Your task to perform on an android device: Go to accessibility settings Image 0: 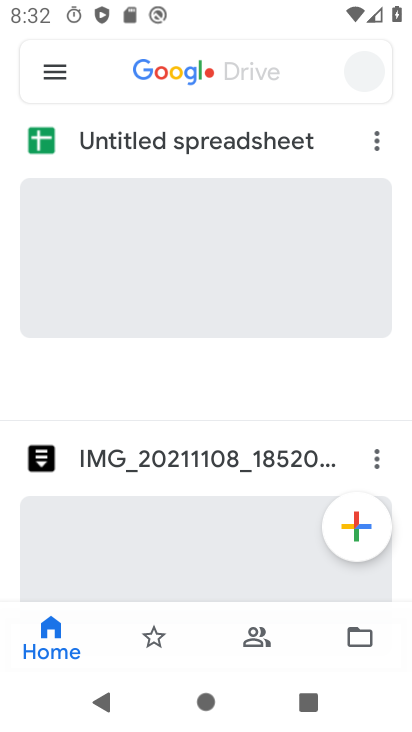
Step 0: press home button
Your task to perform on an android device: Go to accessibility settings Image 1: 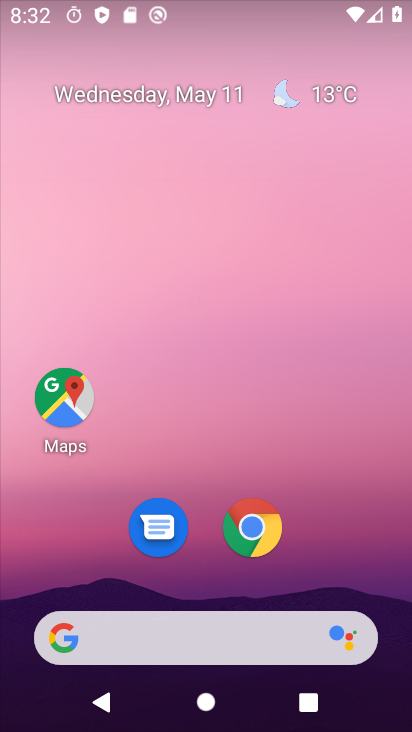
Step 1: drag from (187, 571) to (217, 75)
Your task to perform on an android device: Go to accessibility settings Image 2: 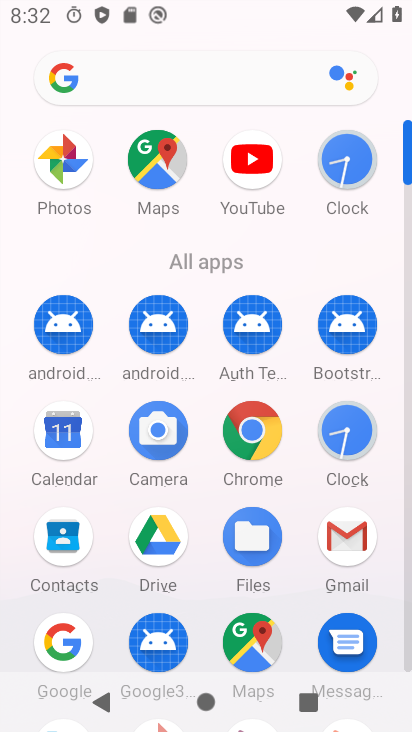
Step 2: drag from (195, 520) to (225, 34)
Your task to perform on an android device: Go to accessibility settings Image 3: 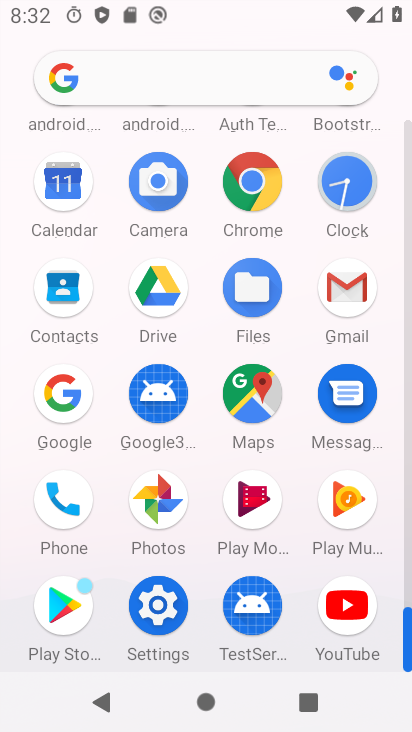
Step 3: click (152, 612)
Your task to perform on an android device: Go to accessibility settings Image 4: 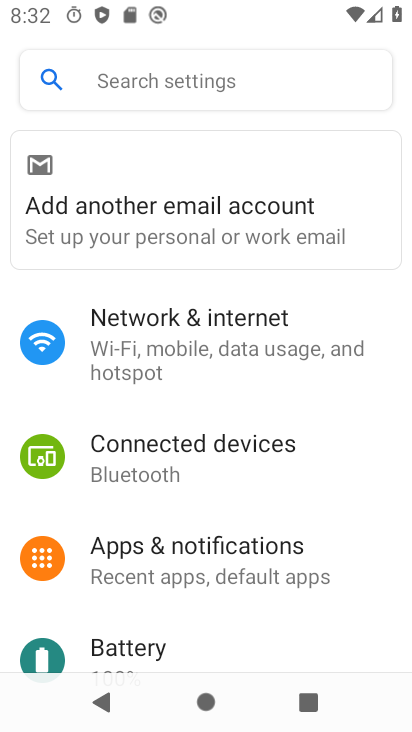
Step 4: drag from (208, 575) to (257, 11)
Your task to perform on an android device: Go to accessibility settings Image 5: 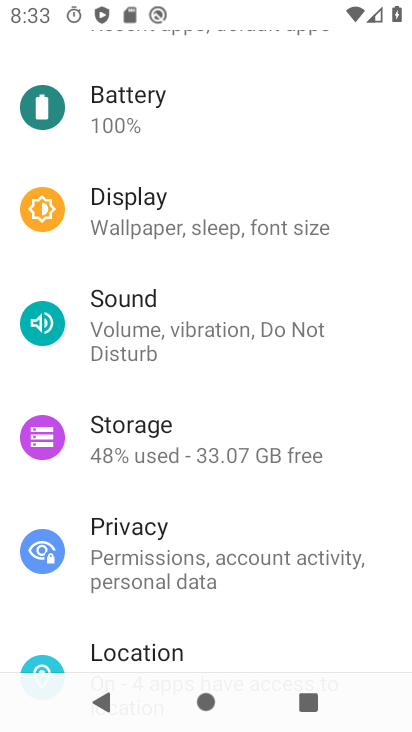
Step 5: drag from (178, 519) to (247, 16)
Your task to perform on an android device: Go to accessibility settings Image 6: 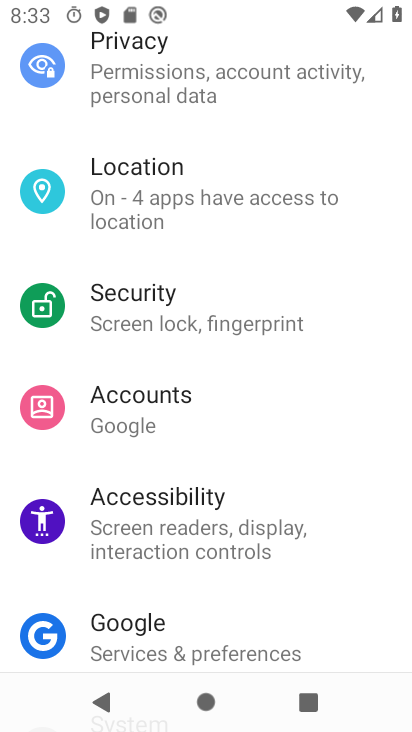
Step 6: drag from (189, 611) to (182, 358)
Your task to perform on an android device: Go to accessibility settings Image 7: 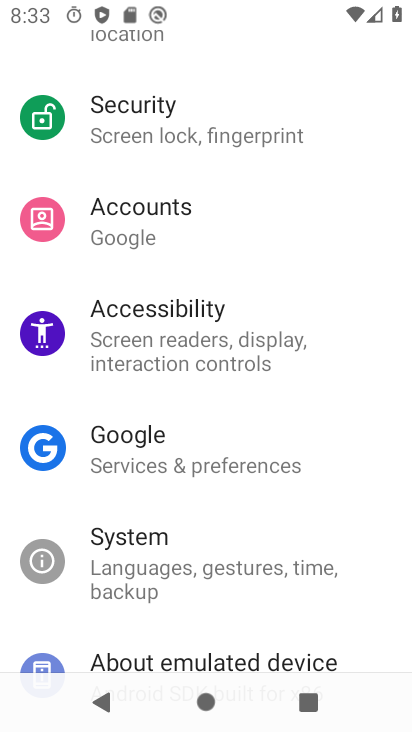
Step 7: click (147, 334)
Your task to perform on an android device: Go to accessibility settings Image 8: 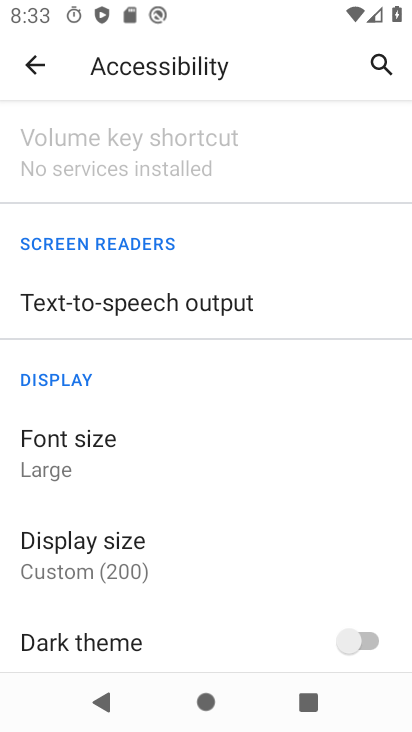
Step 8: task complete